Your task to perform on an android device: turn on location history Image 0: 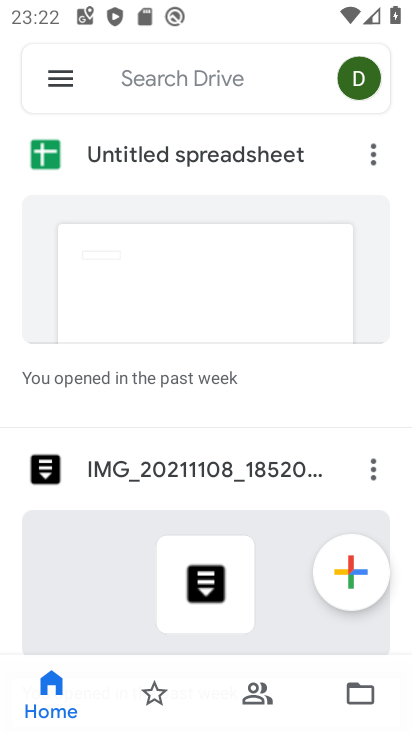
Step 0: press home button
Your task to perform on an android device: turn on location history Image 1: 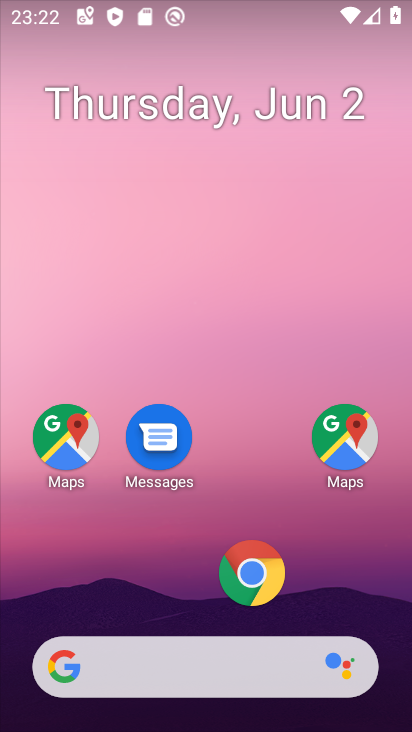
Step 1: drag from (159, 583) to (213, 155)
Your task to perform on an android device: turn on location history Image 2: 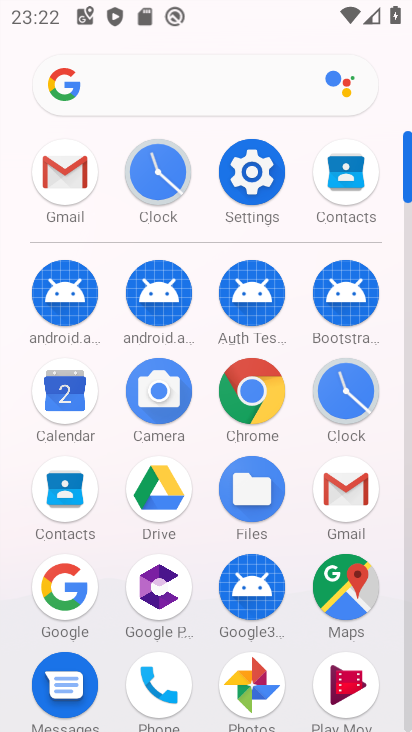
Step 2: click (263, 174)
Your task to perform on an android device: turn on location history Image 3: 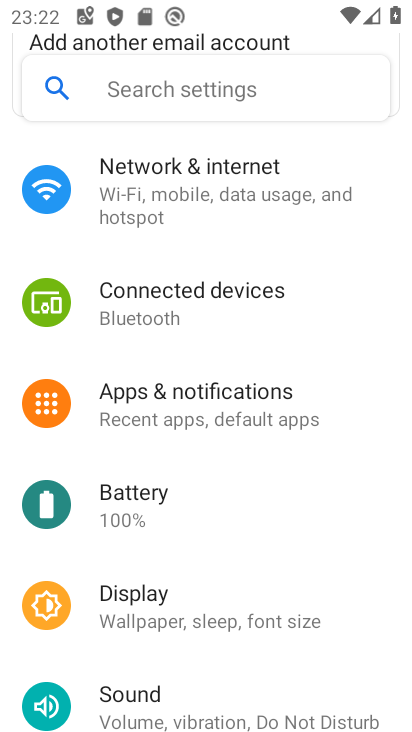
Step 3: drag from (187, 478) to (165, 230)
Your task to perform on an android device: turn on location history Image 4: 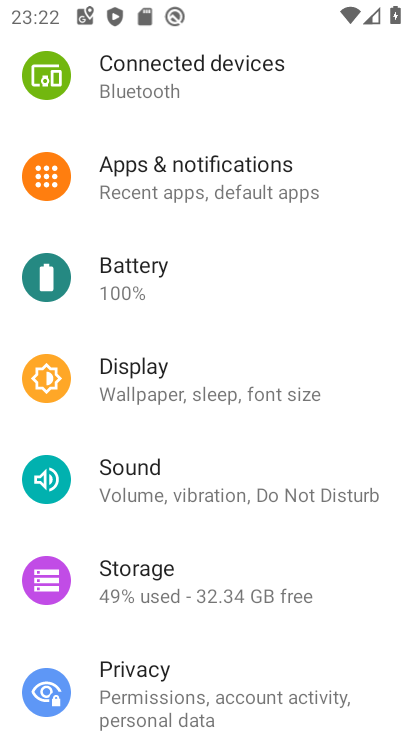
Step 4: drag from (135, 640) to (157, 107)
Your task to perform on an android device: turn on location history Image 5: 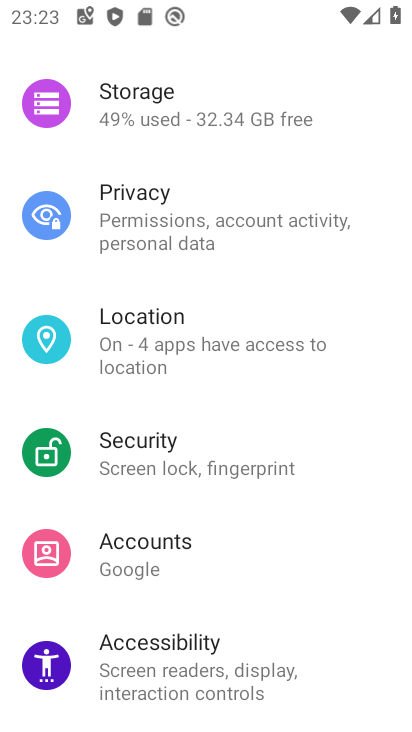
Step 5: click (178, 336)
Your task to perform on an android device: turn on location history Image 6: 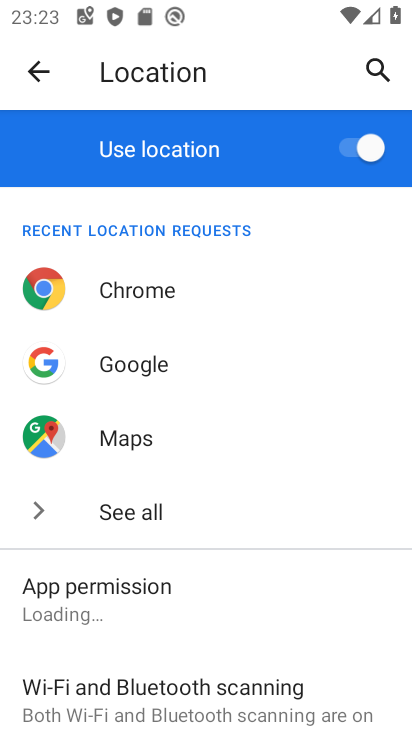
Step 6: drag from (274, 613) to (266, 189)
Your task to perform on an android device: turn on location history Image 7: 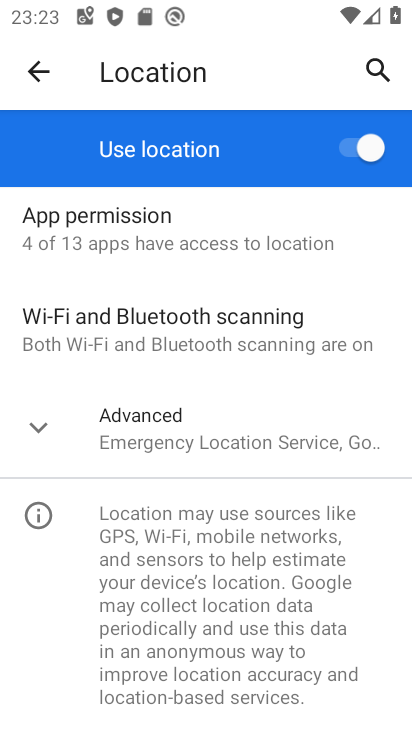
Step 7: click (172, 414)
Your task to perform on an android device: turn on location history Image 8: 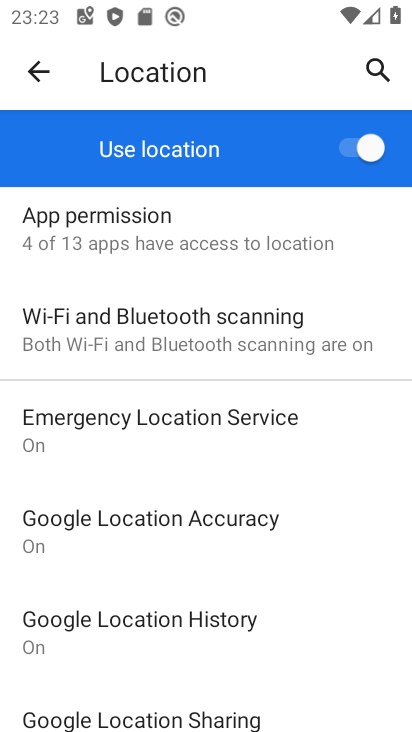
Step 8: click (198, 625)
Your task to perform on an android device: turn on location history Image 9: 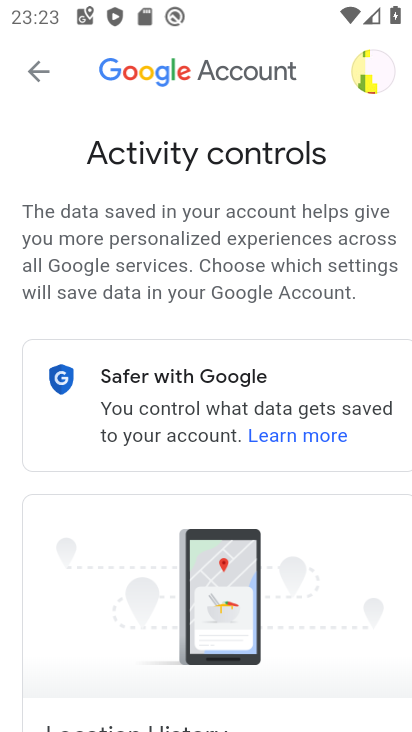
Step 9: task complete